Your task to perform on an android device: find which apps use the phone's location Image 0: 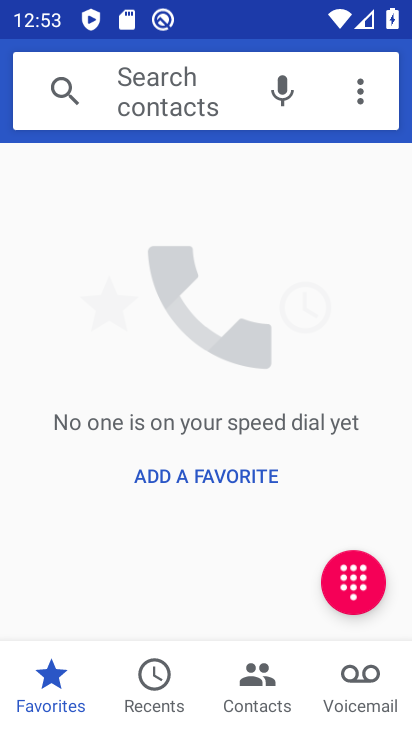
Step 0: press home button
Your task to perform on an android device: find which apps use the phone's location Image 1: 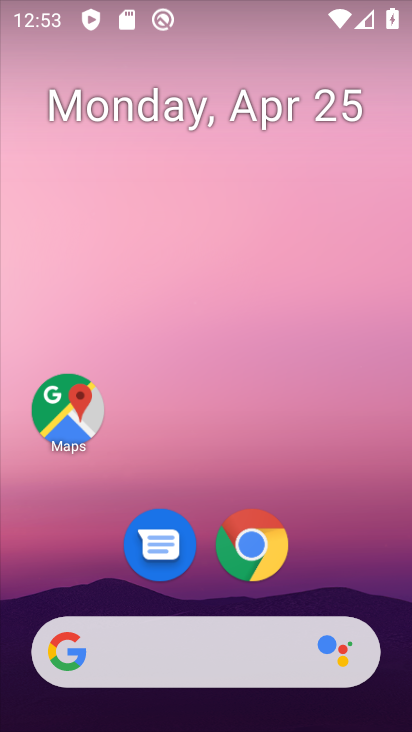
Step 1: drag from (205, 359) to (73, 81)
Your task to perform on an android device: find which apps use the phone's location Image 2: 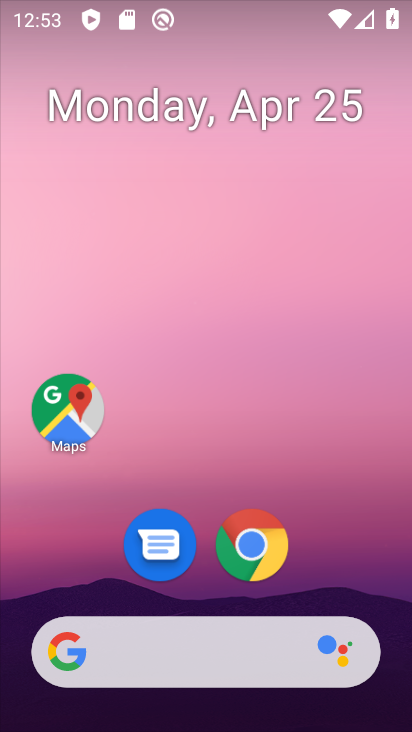
Step 2: drag from (356, 597) to (51, 73)
Your task to perform on an android device: find which apps use the phone's location Image 3: 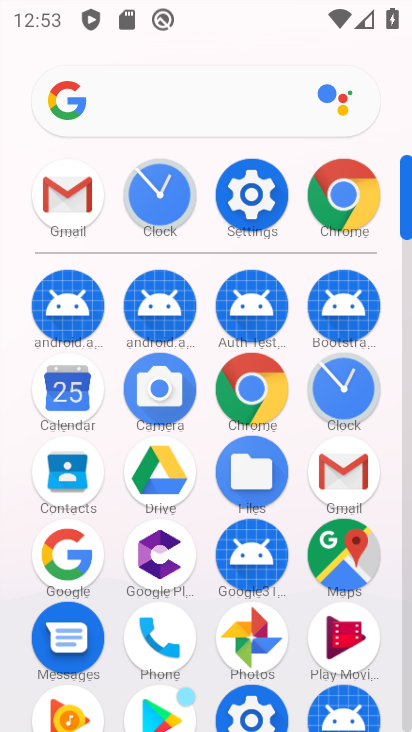
Step 3: click (255, 197)
Your task to perform on an android device: find which apps use the phone's location Image 4: 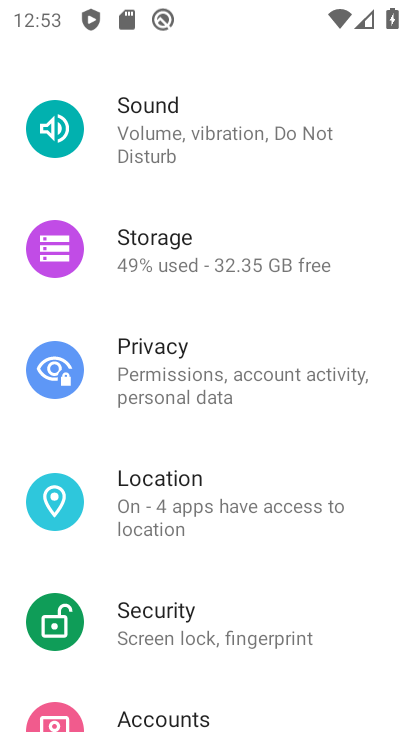
Step 4: click (170, 524)
Your task to perform on an android device: find which apps use the phone's location Image 5: 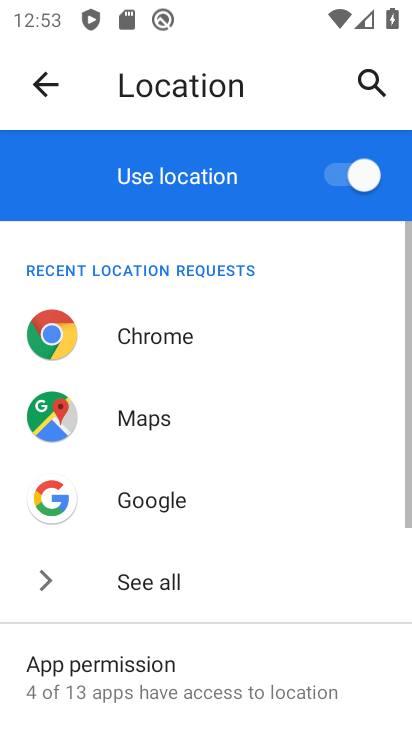
Step 5: click (85, 682)
Your task to perform on an android device: find which apps use the phone's location Image 6: 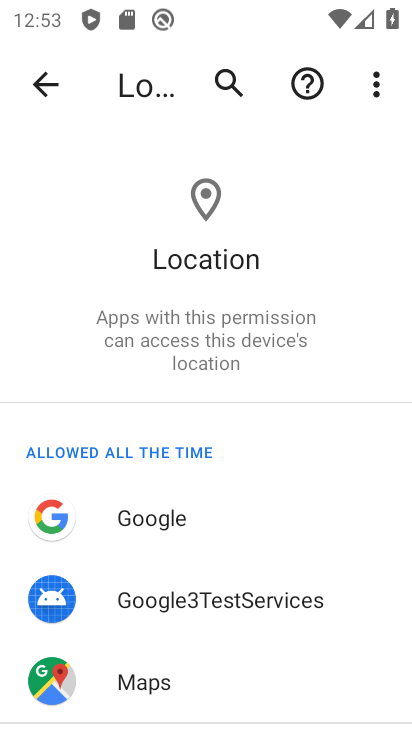
Step 6: task complete